Your task to perform on an android device: Play some music on YouTube Image 0: 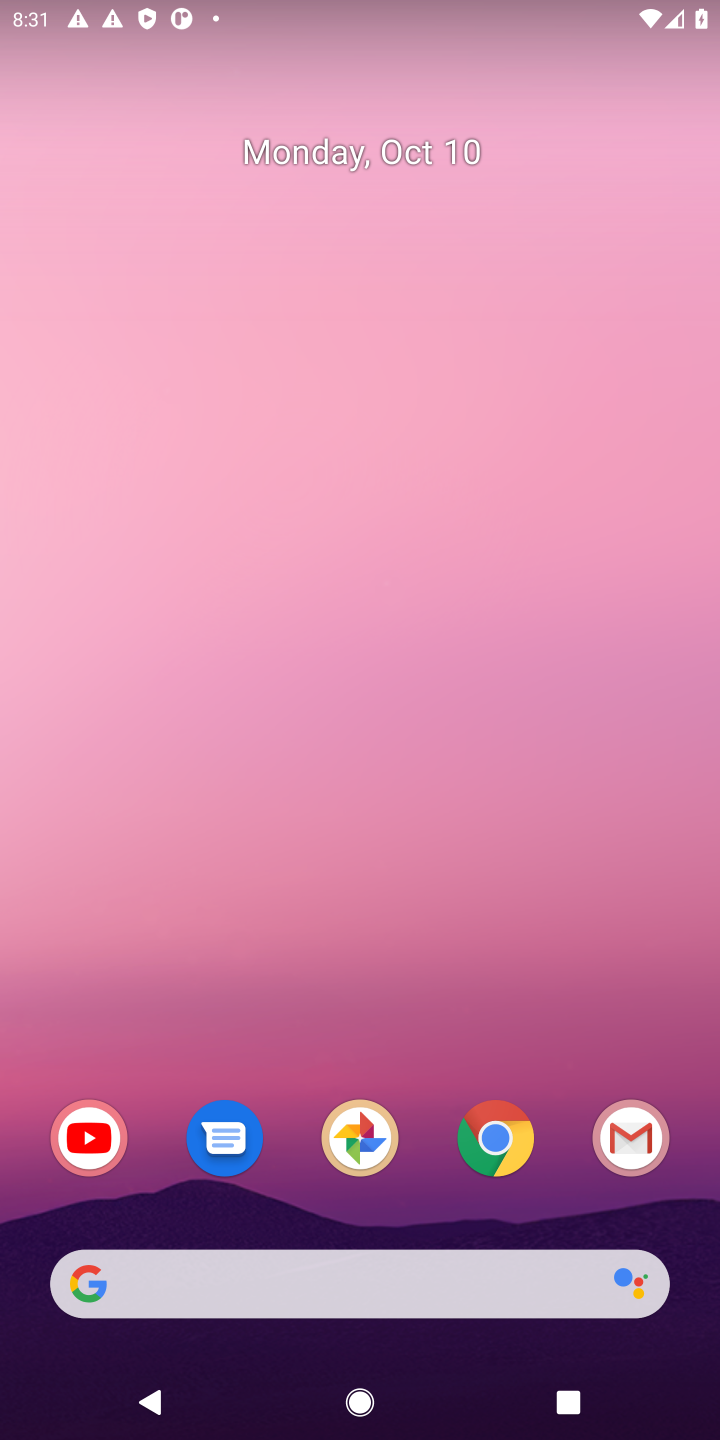
Step 0: click (96, 1137)
Your task to perform on an android device: Play some music on YouTube Image 1: 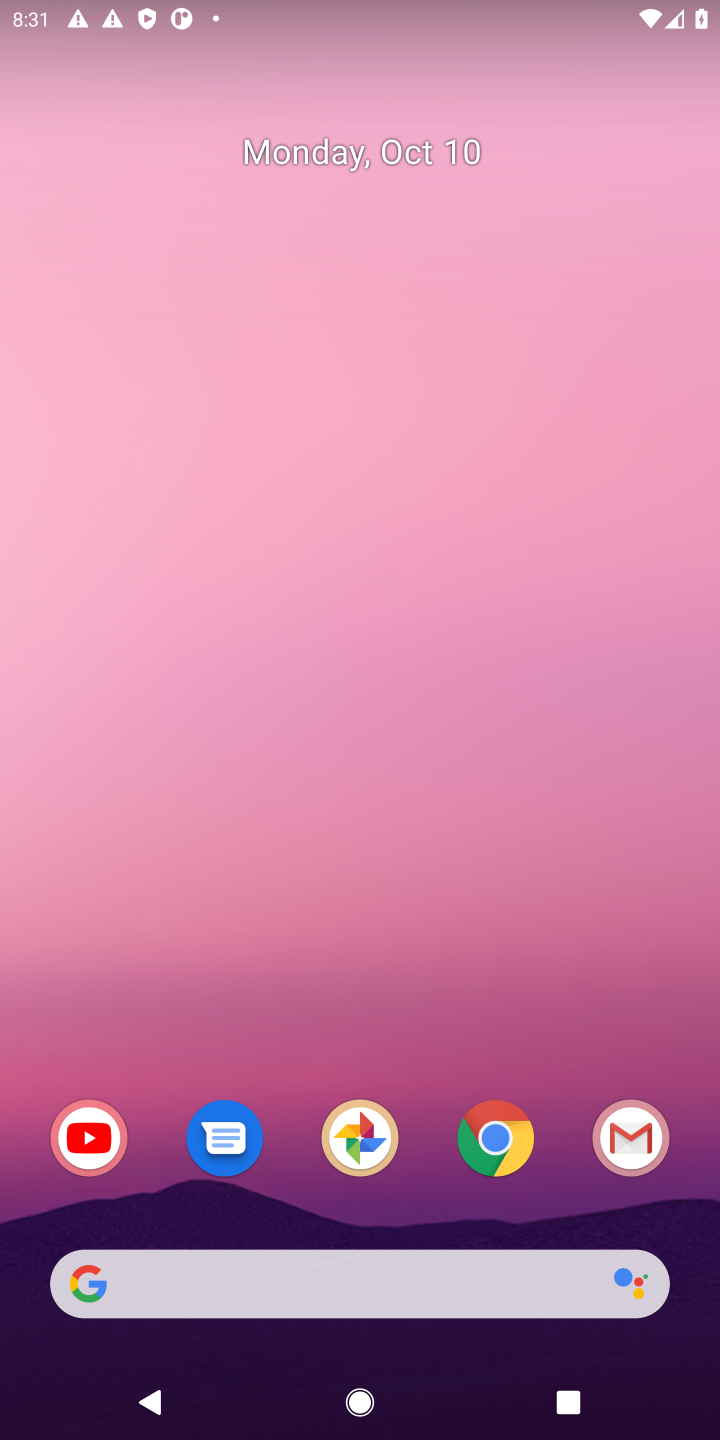
Step 1: click (88, 1133)
Your task to perform on an android device: Play some music on YouTube Image 2: 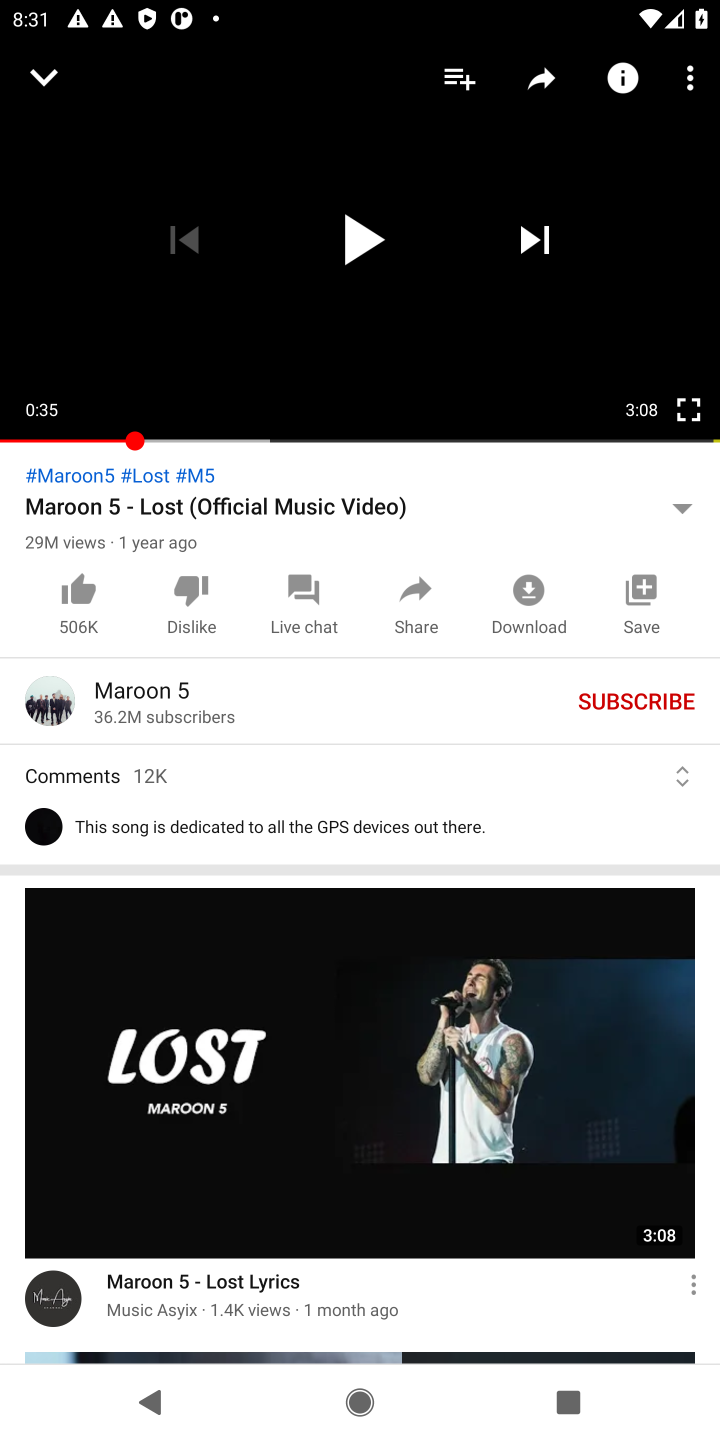
Step 2: press back button
Your task to perform on an android device: Play some music on YouTube Image 3: 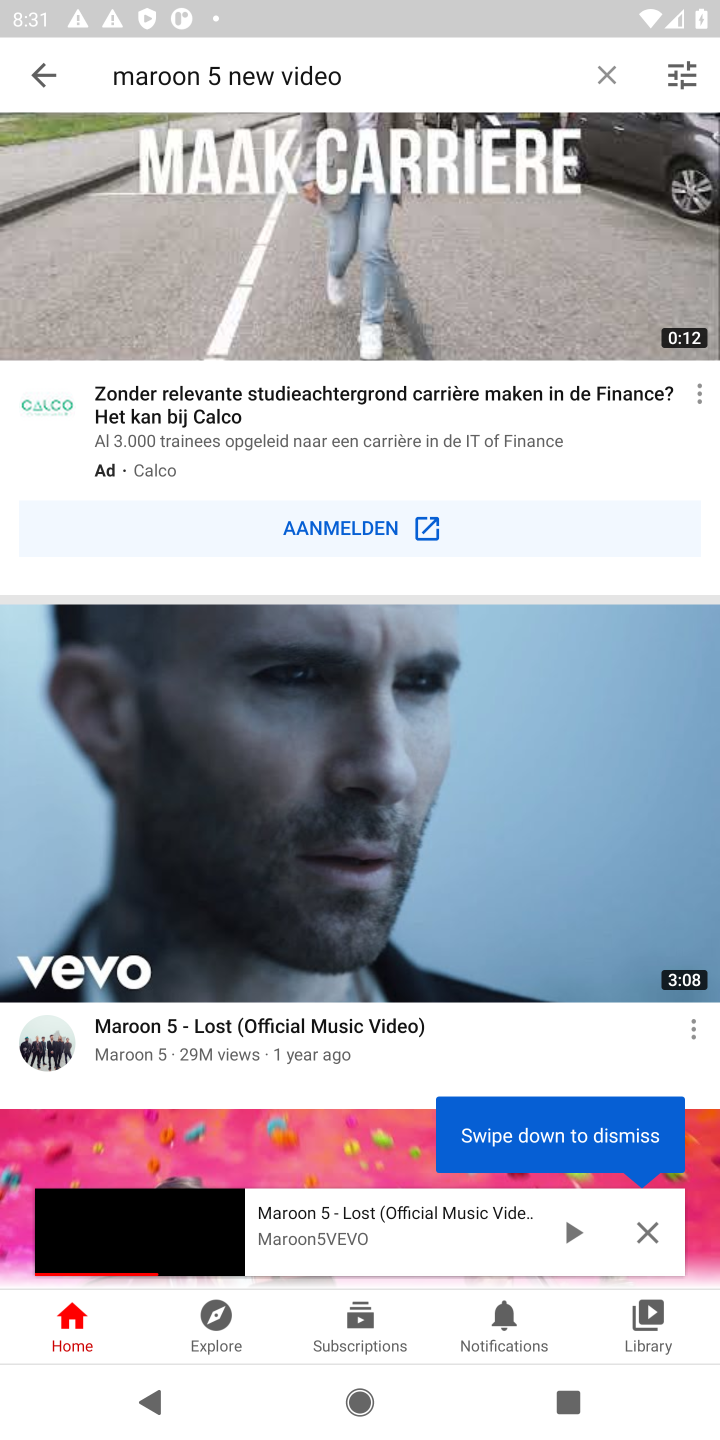
Step 3: click (642, 1228)
Your task to perform on an android device: Play some music on YouTube Image 4: 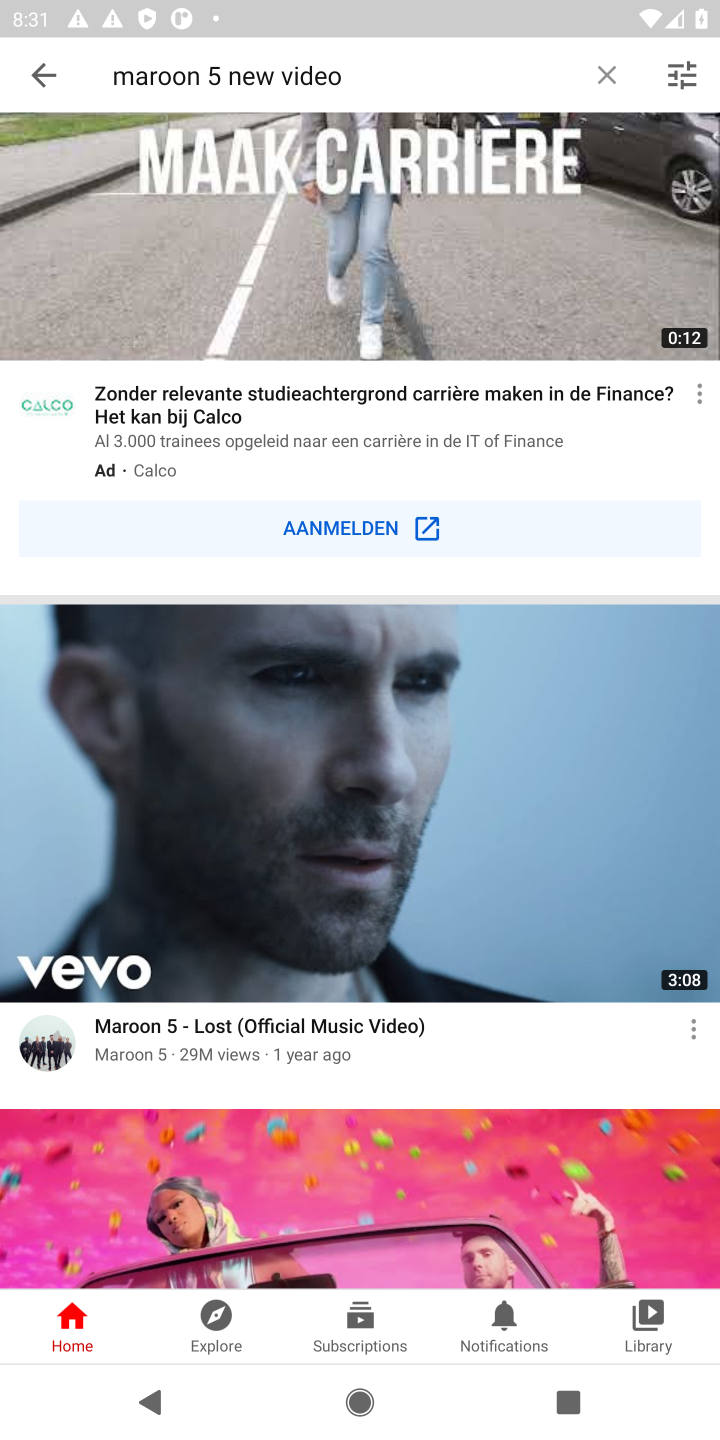
Step 4: click (613, 73)
Your task to perform on an android device: Play some music on YouTube Image 5: 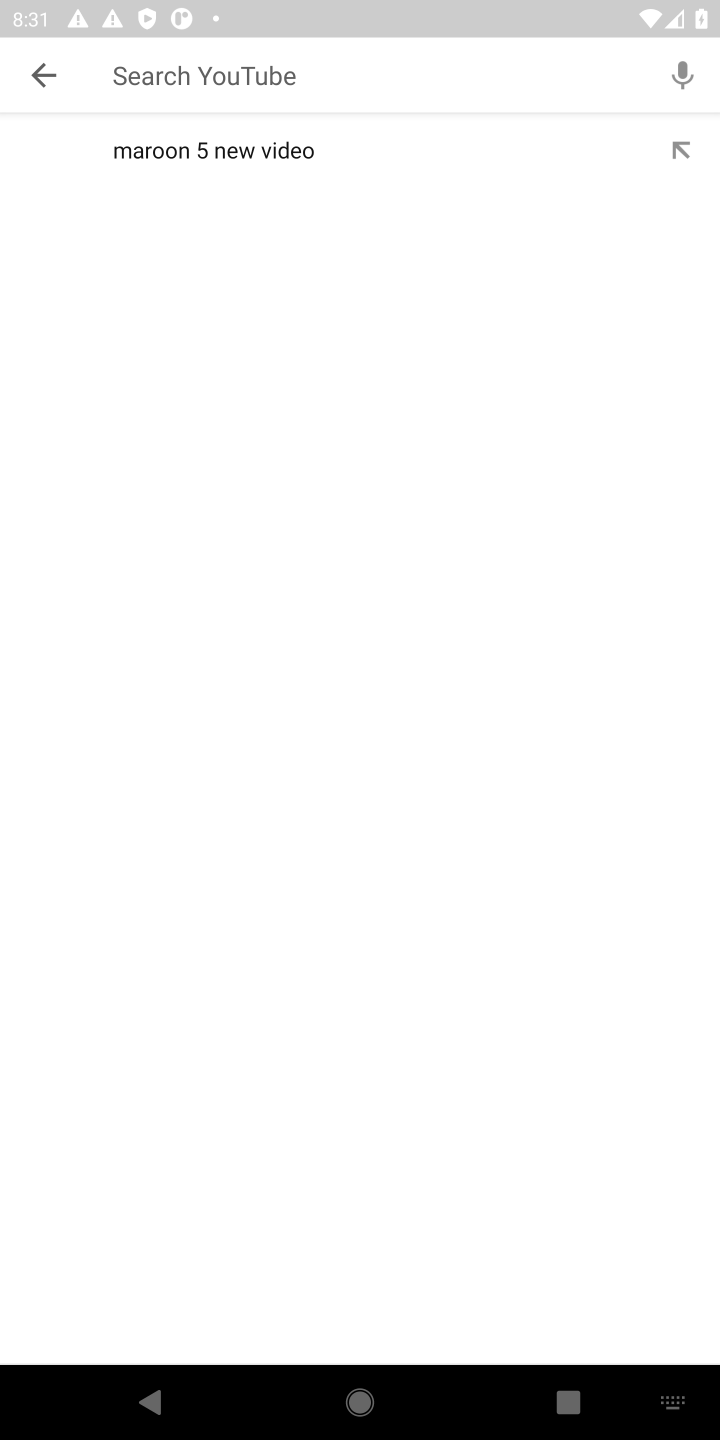
Step 5: type "music"
Your task to perform on an android device: Play some music on YouTube Image 6: 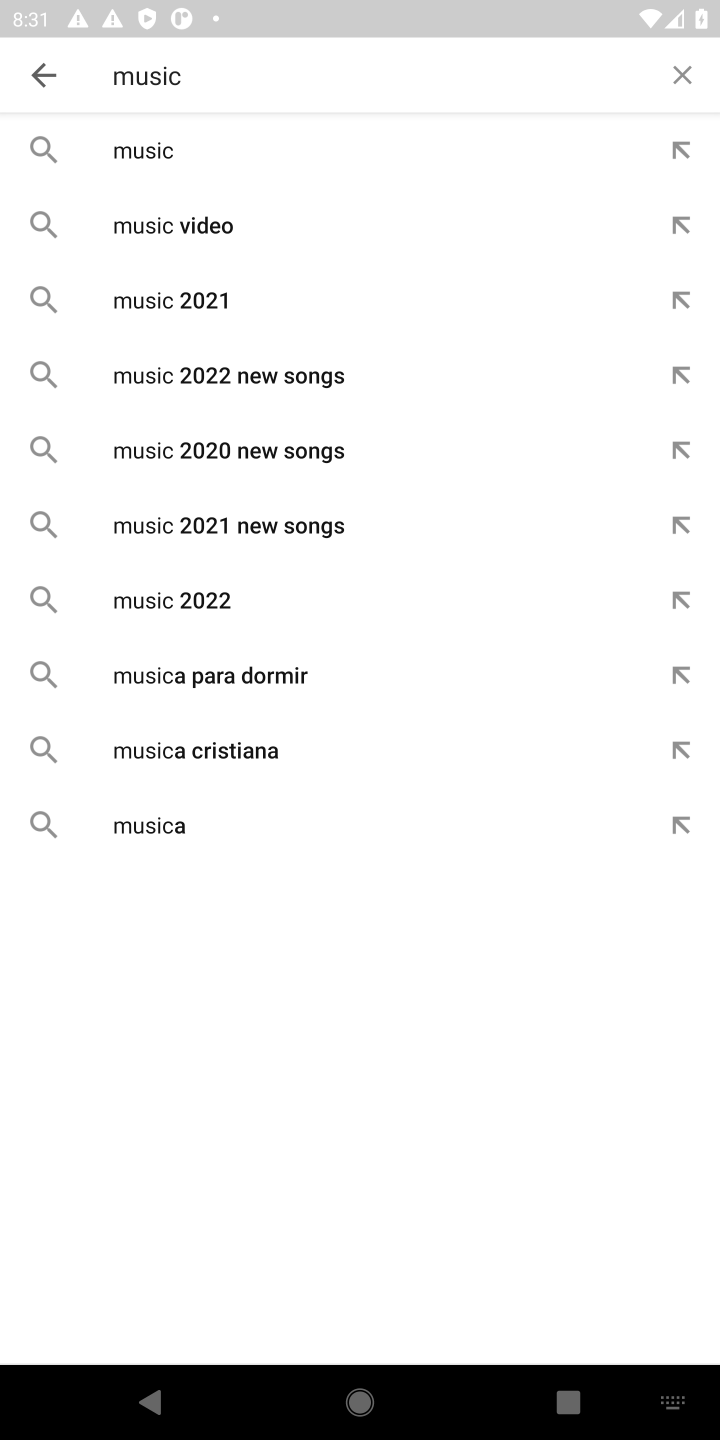
Step 6: click (160, 152)
Your task to perform on an android device: Play some music on YouTube Image 7: 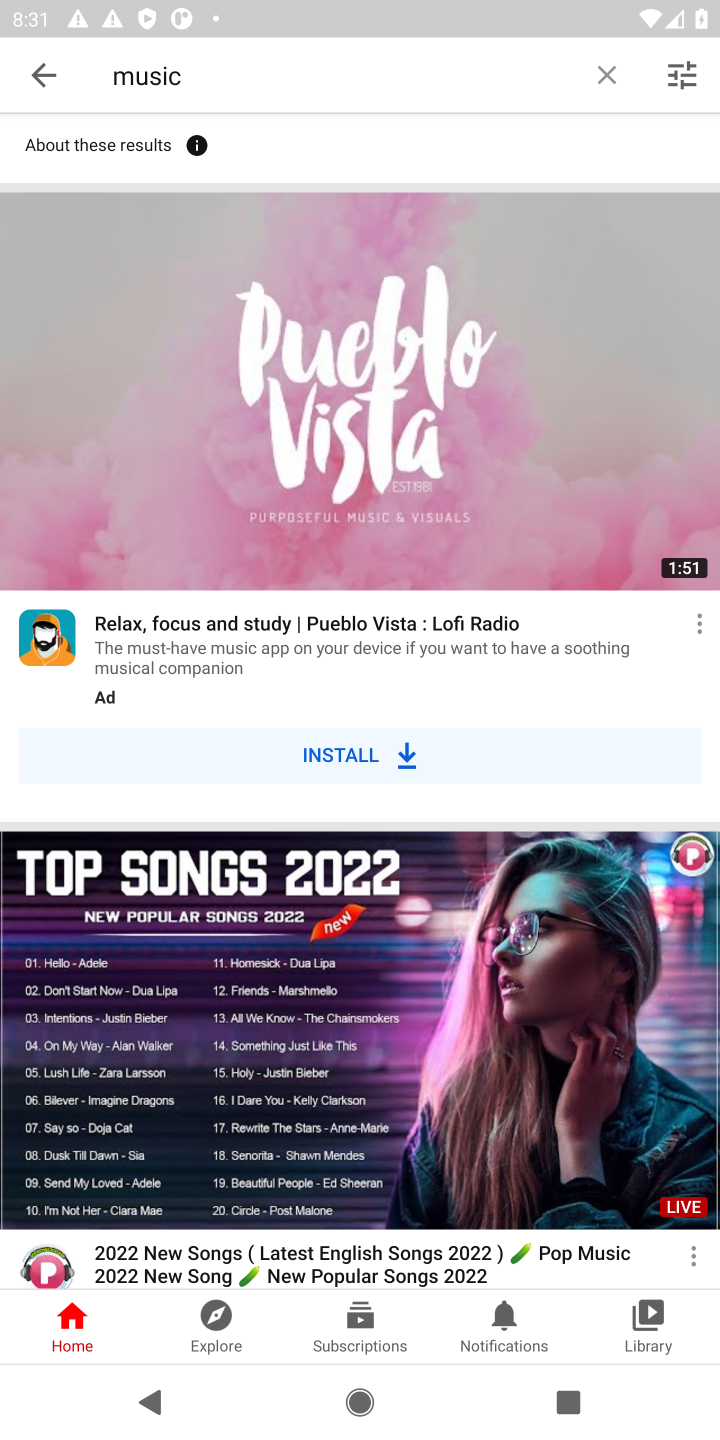
Step 7: click (361, 902)
Your task to perform on an android device: Play some music on YouTube Image 8: 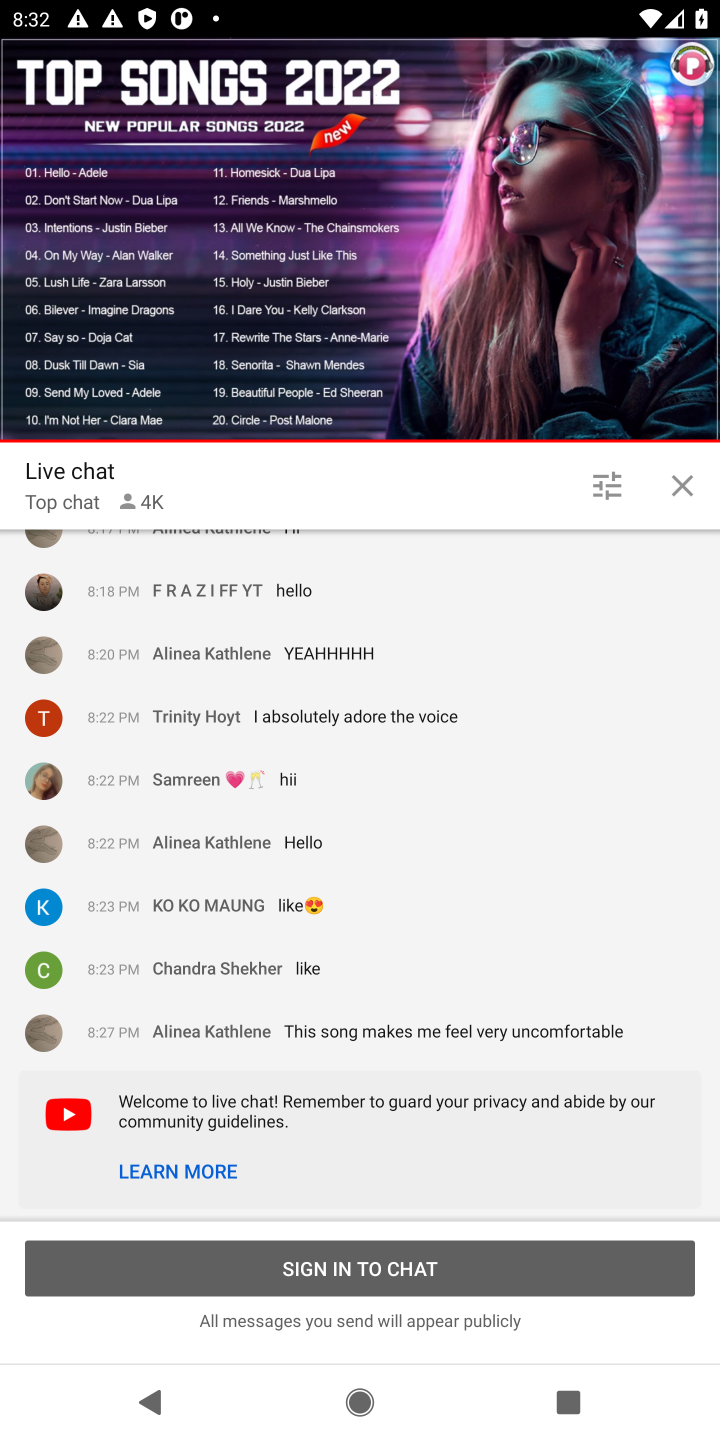
Step 8: task complete